Your task to perform on an android device: Go to Yahoo.com Image 0: 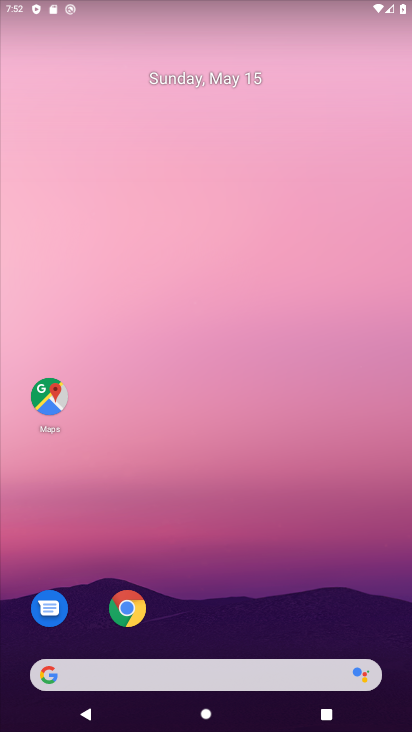
Step 0: drag from (277, 599) to (178, 43)
Your task to perform on an android device: Go to Yahoo.com Image 1: 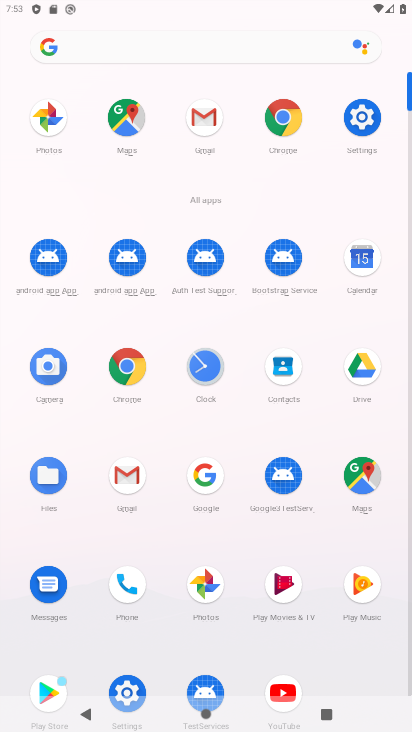
Step 1: click (285, 133)
Your task to perform on an android device: Go to Yahoo.com Image 2: 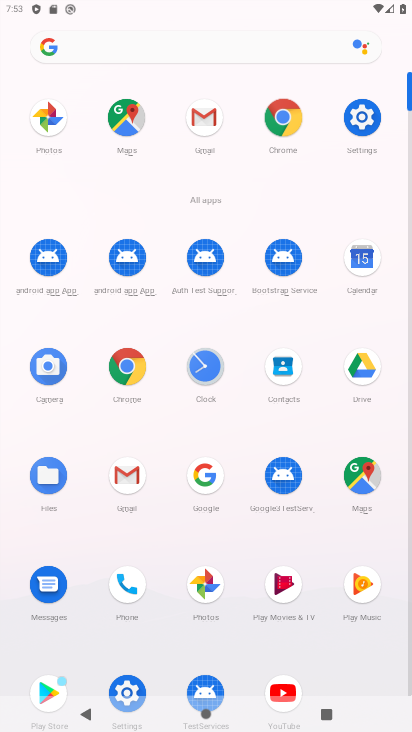
Step 2: click (284, 128)
Your task to perform on an android device: Go to Yahoo.com Image 3: 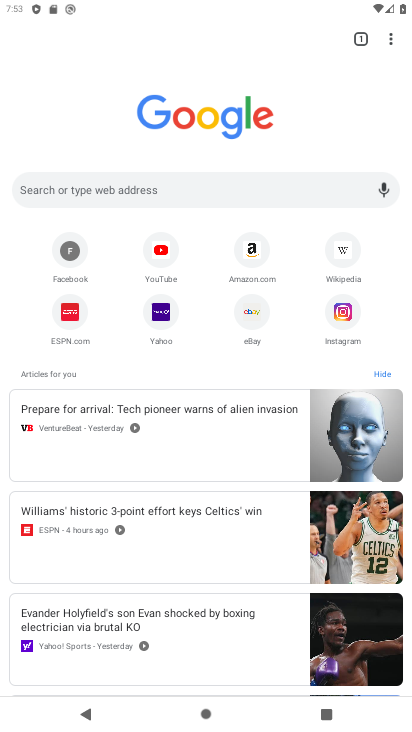
Step 3: click (156, 262)
Your task to perform on an android device: Go to Yahoo.com Image 4: 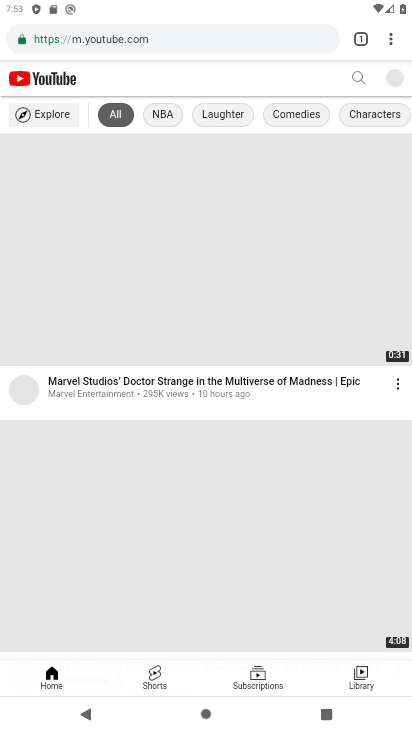
Step 4: press back button
Your task to perform on an android device: Go to Yahoo.com Image 5: 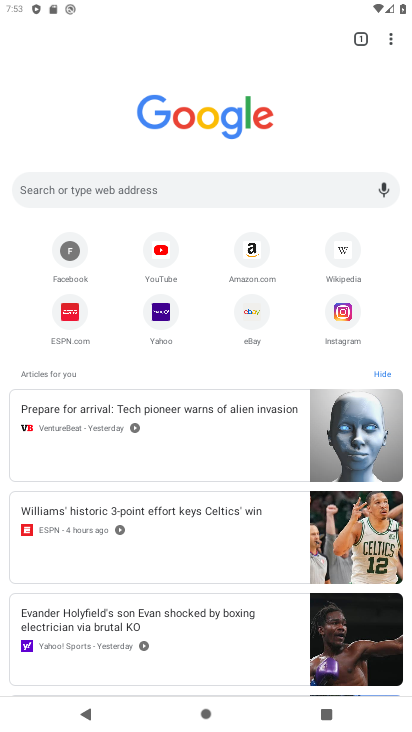
Step 5: click (157, 322)
Your task to perform on an android device: Go to Yahoo.com Image 6: 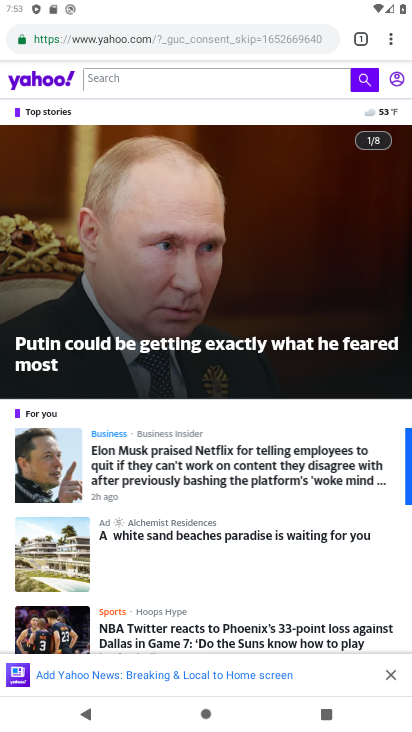
Step 6: task complete